Your task to perform on an android device: see creations saved in the google photos Image 0: 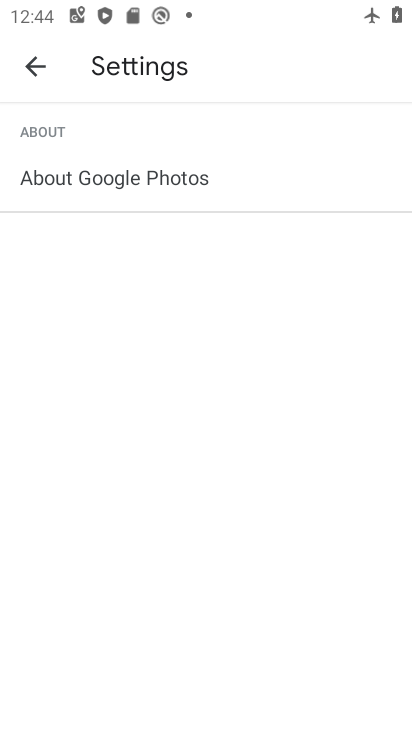
Step 0: press home button
Your task to perform on an android device: see creations saved in the google photos Image 1: 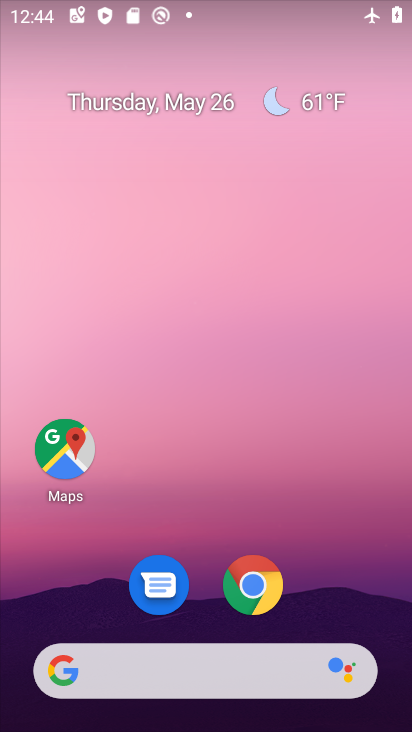
Step 1: drag from (206, 473) to (243, 21)
Your task to perform on an android device: see creations saved in the google photos Image 2: 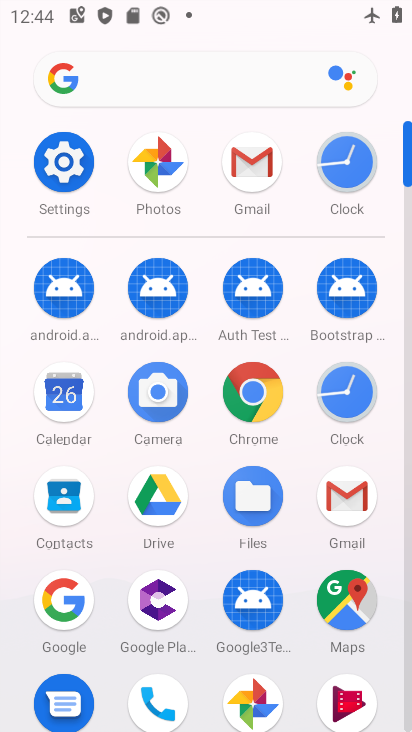
Step 2: click (259, 688)
Your task to perform on an android device: see creations saved in the google photos Image 3: 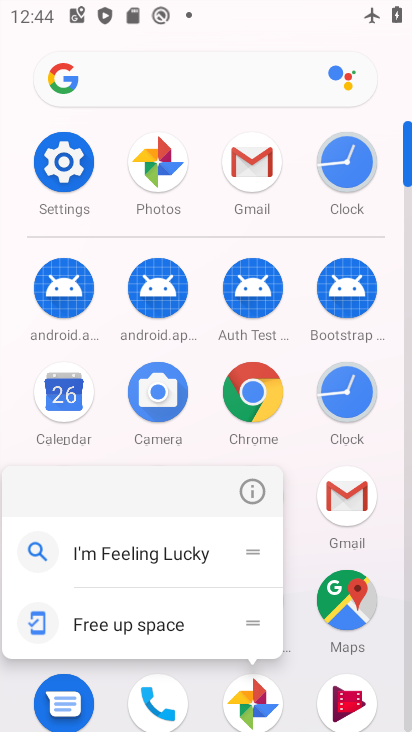
Step 3: click (256, 693)
Your task to perform on an android device: see creations saved in the google photos Image 4: 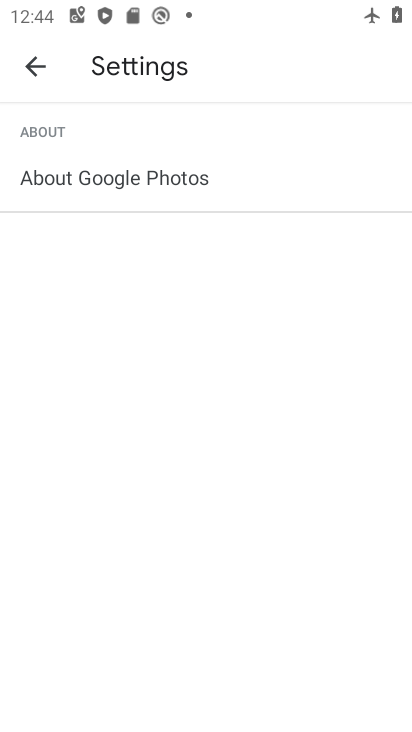
Step 4: click (33, 59)
Your task to perform on an android device: see creations saved in the google photos Image 5: 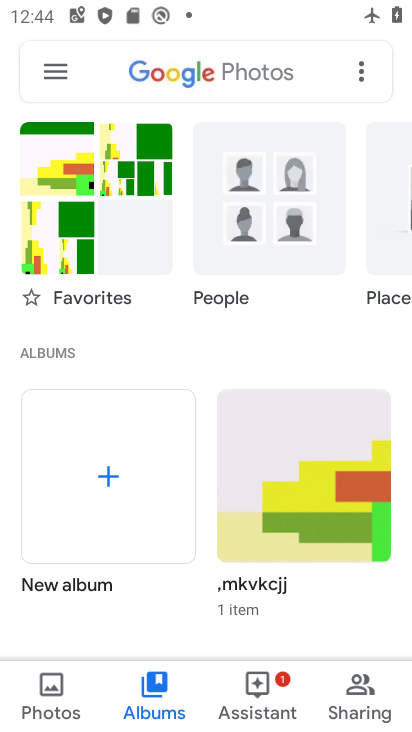
Step 5: click (196, 69)
Your task to perform on an android device: see creations saved in the google photos Image 6: 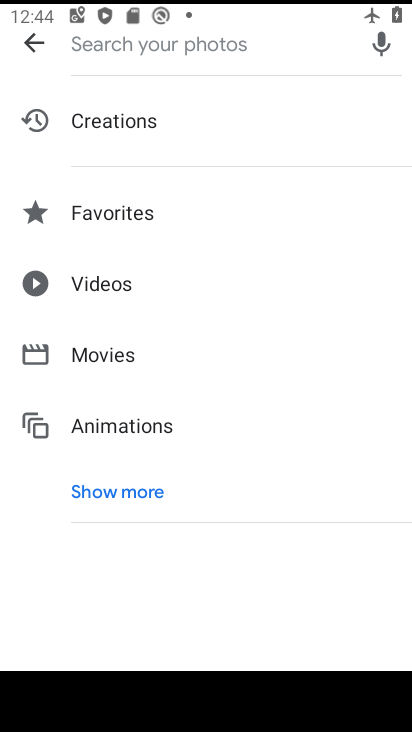
Step 6: click (109, 485)
Your task to perform on an android device: see creations saved in the google photos Image 7: 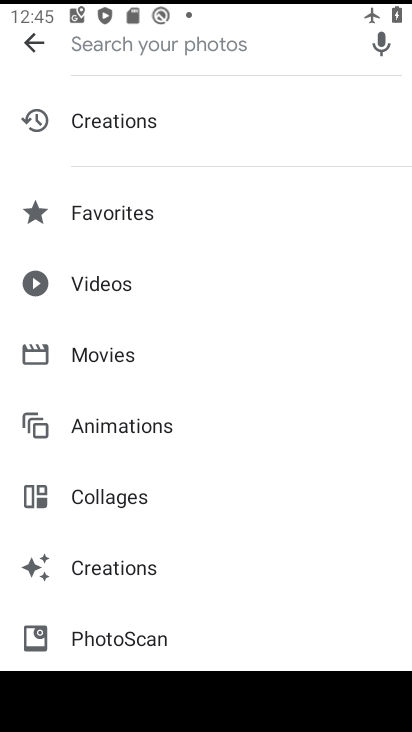
Step 7: click (112, 563)
Your task to perform on an android device: see creations saved in the google photos Image 8: 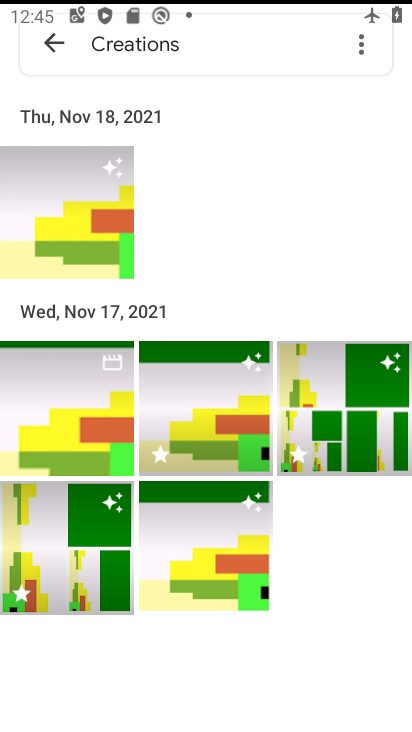
Step 8: task complete